Your task to perform on an android device: Go to privacy settings Image 0: 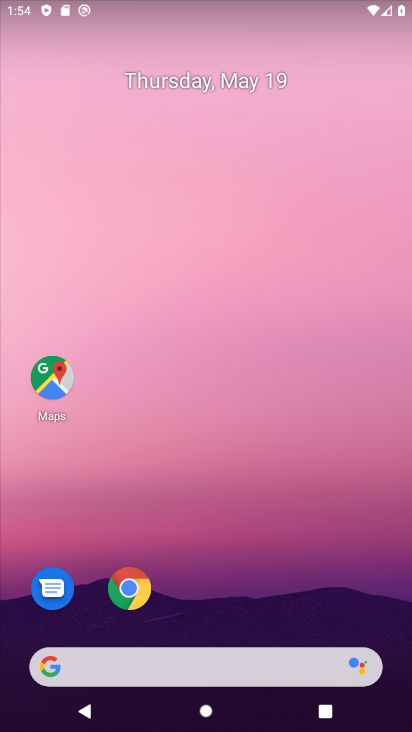
Step 0: drag from (229, 433) to (247, 27)
Your task to perform on an android device: Go to privacy settings Image 1: 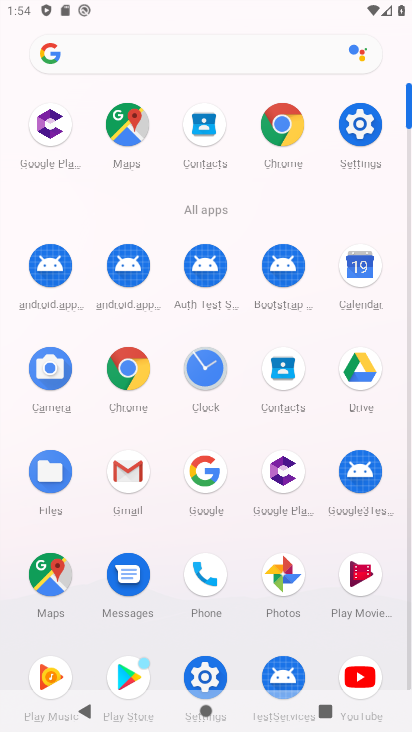
Step 1: click (351, 122)
Your task to perform on an android device: Go to privacy settings Image 2: 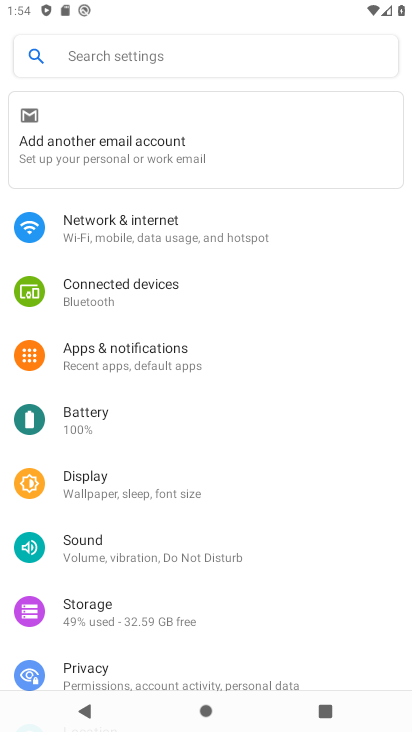
Step 2: drag from (209, 594) to (261, 232)
Your task to perform on an android device: Go to privacy settings Image 3: 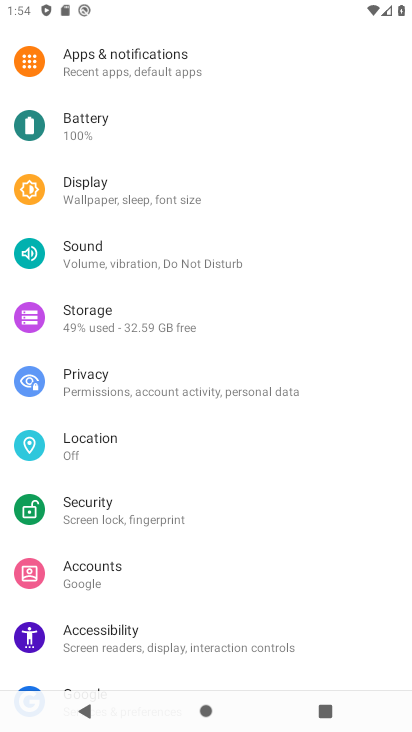
Step 3: click (158, 379)
Your task to perform on an android device: Go to privacy settings Image 4: 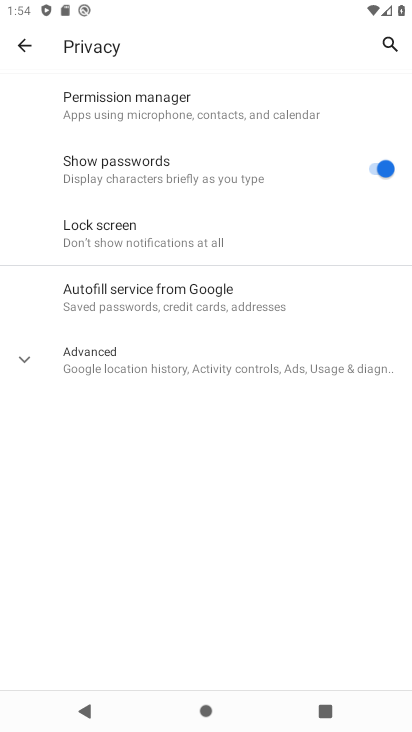
Step 4: task complete